Your task to perform on an android device: Open ESPN.com Image 0: 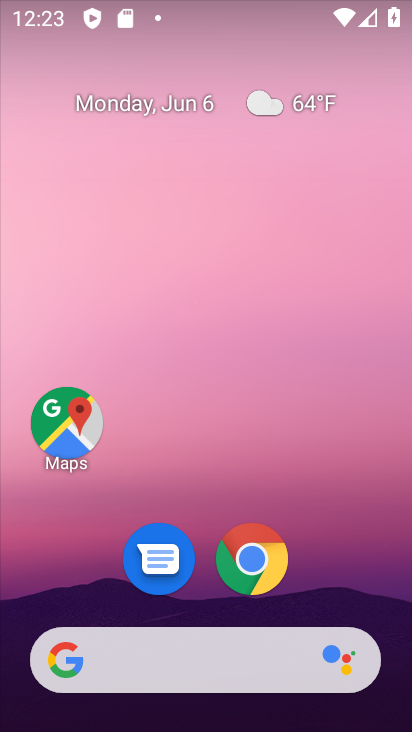
Step 0: drag from (327, 699) to (374, 304)
Your task to perform on an android device: Open ESPN.com Image 1: 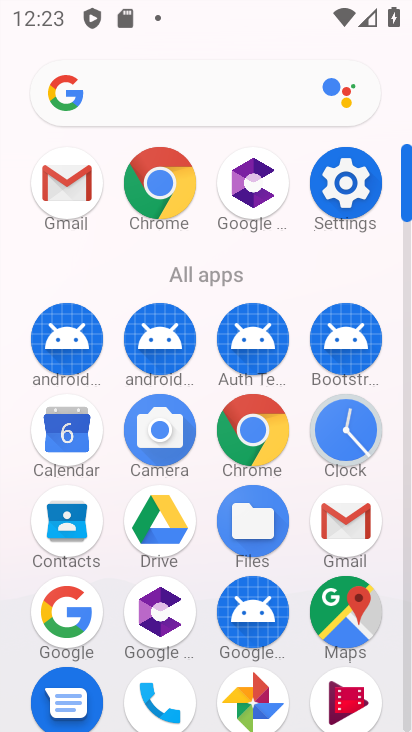
Step 1: click (134, 168)
Your task to perform on an android device: Open ESPN.com Image 2: 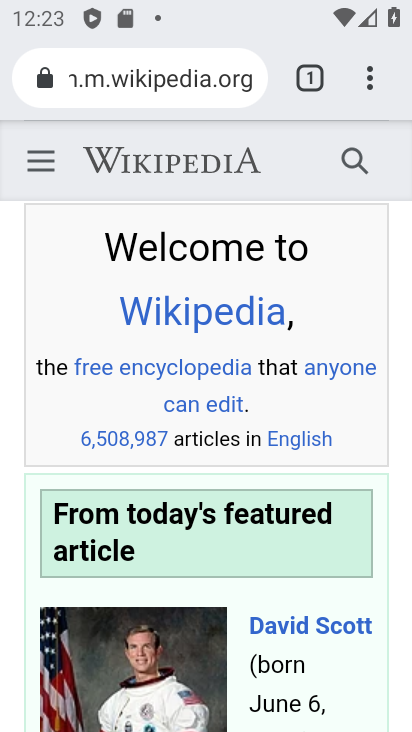
Step 2: click (307, 90)
Your task to perform on an android device: Open ESPN.com Image 3: 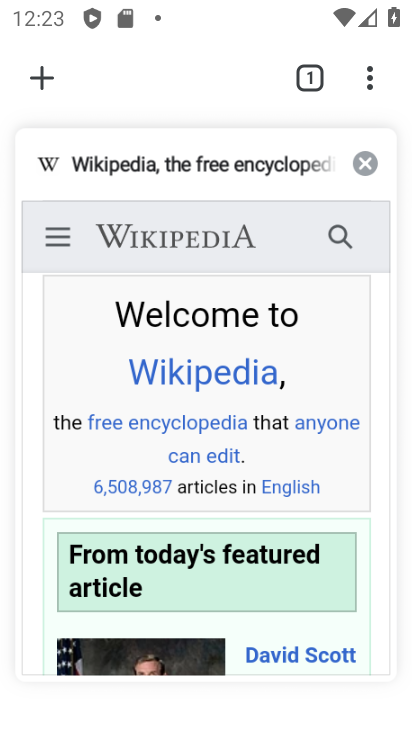
Step 3: click (53, 83)
Your task to perform on an android device: Open ESPN.com Image 4: 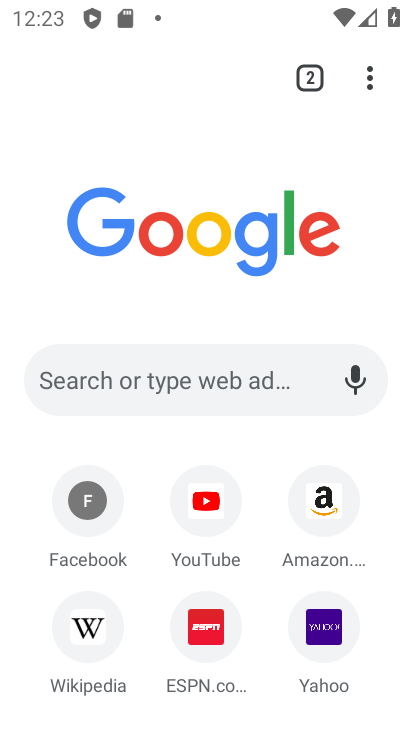
Step 4: click (202, 619)
Your task to perform on an android device: Open ESPN.com Image 5: 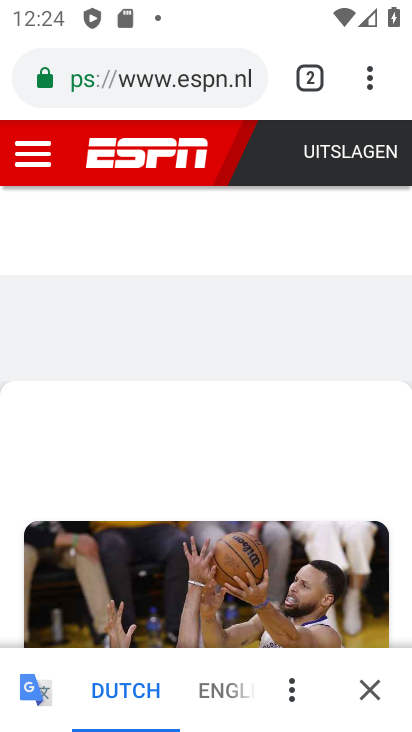
Step 5: task complete